Your task to perform on an android device: Go to internet settings Image 0: 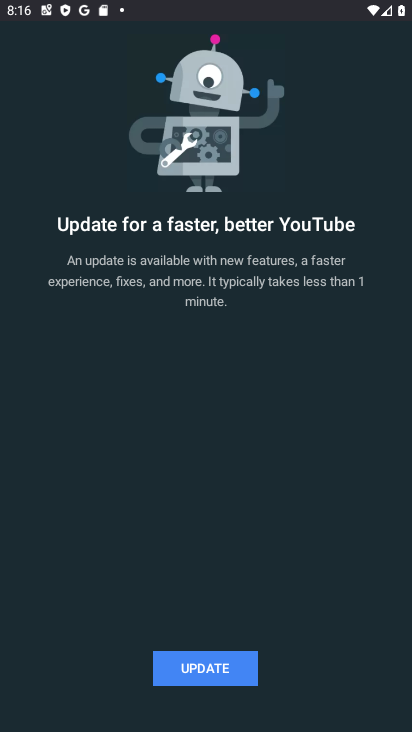
Step 0: press home button
Your task to perform on an android device: Go to internet settings Image 1: 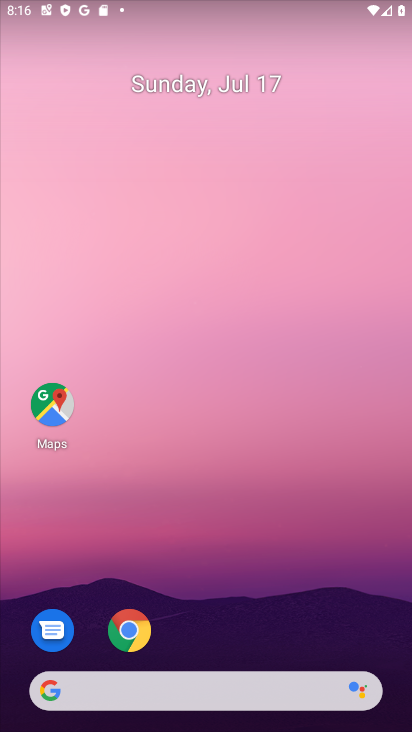
Step 1: drag from (195, 638) to (214, 31)
Your task to perform on an android device: Go to internet settings Image 2: 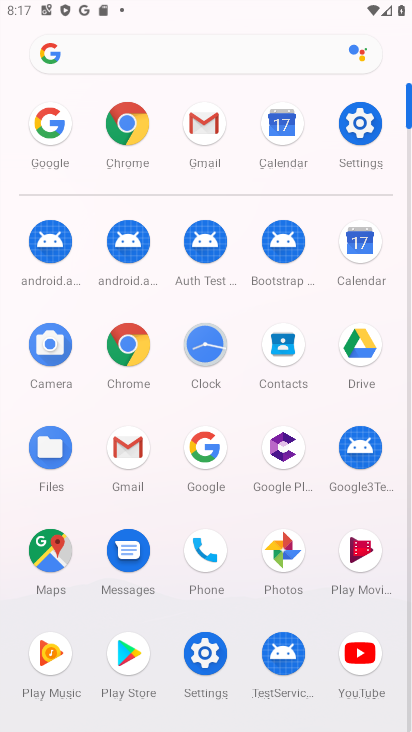
Step 2: click (380, 135)
Your task to perform on an android device: Go to internet settings Image 3: 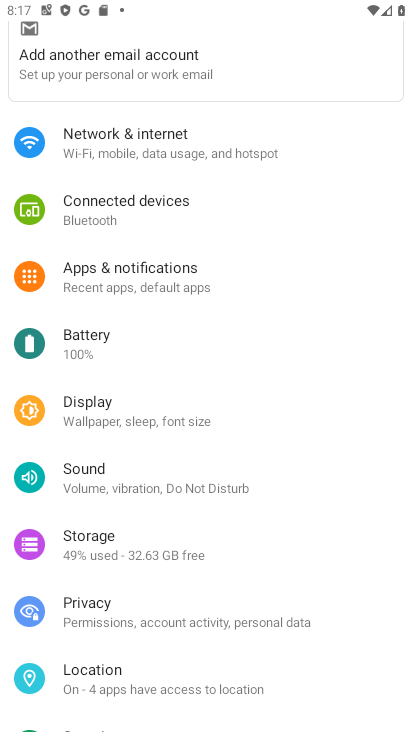
Step 3: click (155, 154)
Your task to perform on an android device: Go to internet settings Image 4: 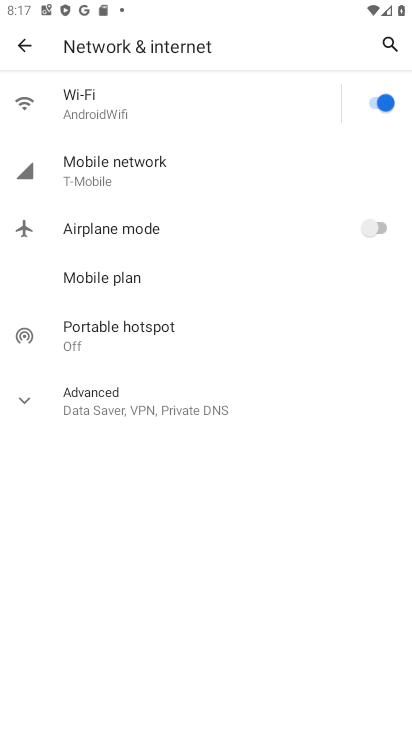
Step 4: task complete